Your task to perform on an android device: Open the Play Movies app and select the watchlist tab. Image 0: 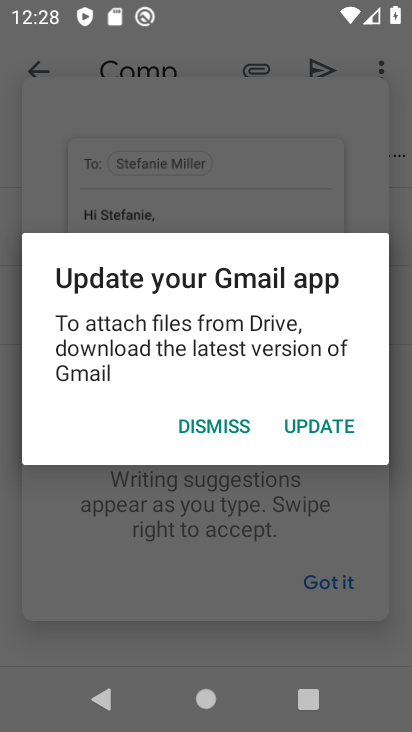
Step 0: press home button
Your task to perform on an android device: Open the Play Movies app and select the watchlist tab. Image 1: 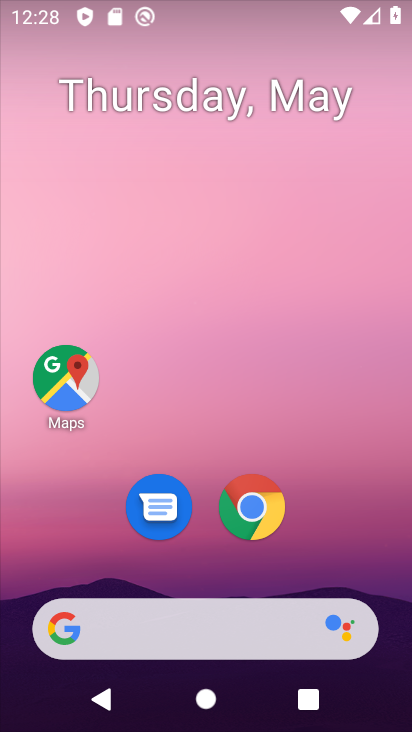
Step 1: drag from (183, 401) to (183, 218)
Your task to perform on an android device: Open the Play Movies app and select the watchlist tab. Image 2: 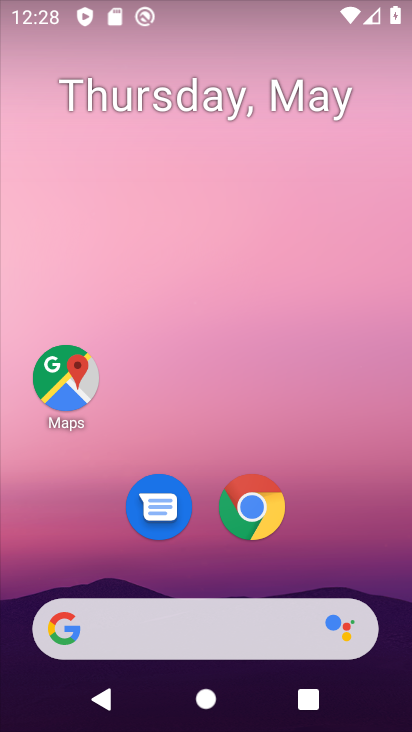
Step 2: drag from (232, 595) to (216, 165)
Your task to perform on an android device: Open the Play Movies app and select the watchlist tab. Image 3: 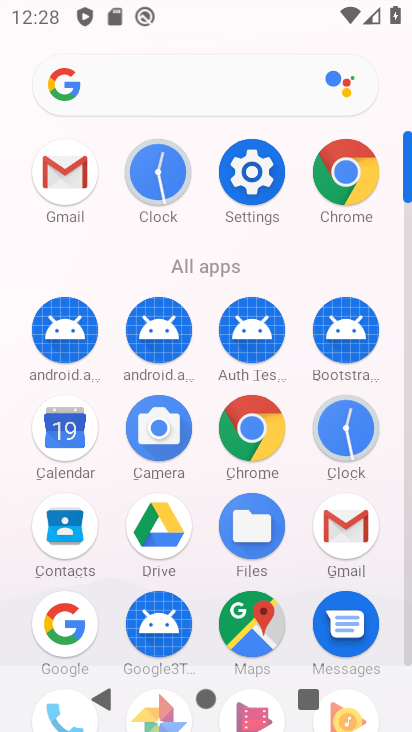
Step 3: drag from (298, 603) to (295, 373)
Your task to perform on an android device: Open the Play Movies app and select the watchlist tab. Image 4: 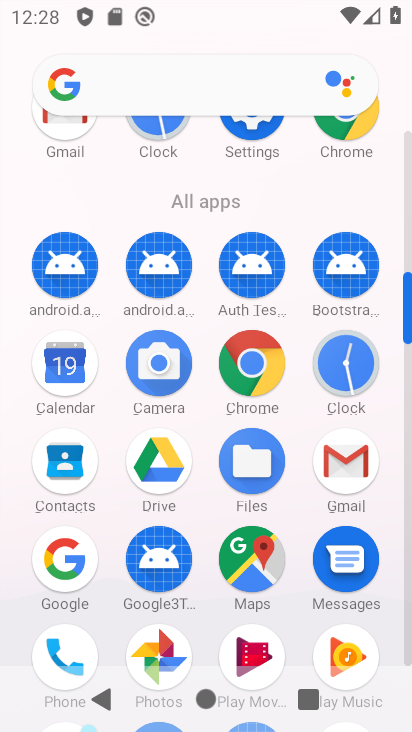
Step 4: click (247, 647)
Your task to perform on an android device: Open the Play Movies app and select the watchlist tab. Image 5: 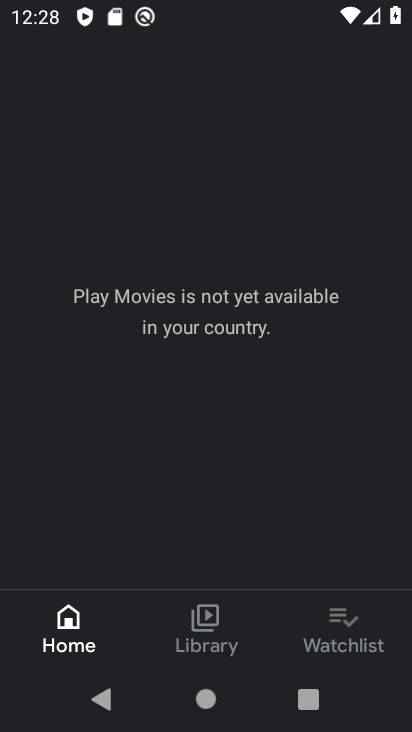
Step 5: click (355, 636)
Your task to perform on an android device: Open the Play Movies app and select the watchlist tab. Image 6: 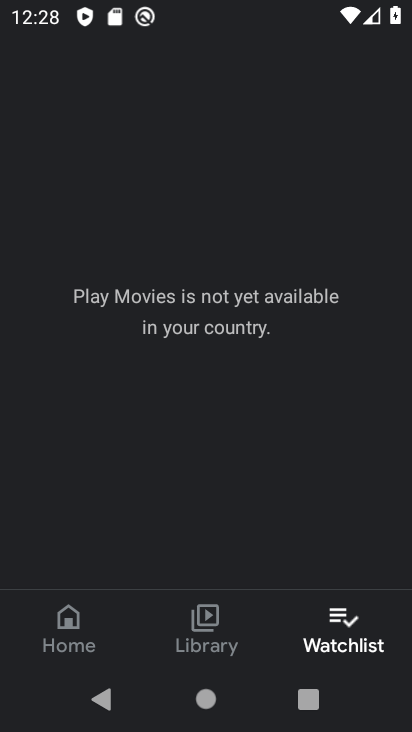
Step 6: task complete